Your task to perform on an android device: Open settings Image 0: 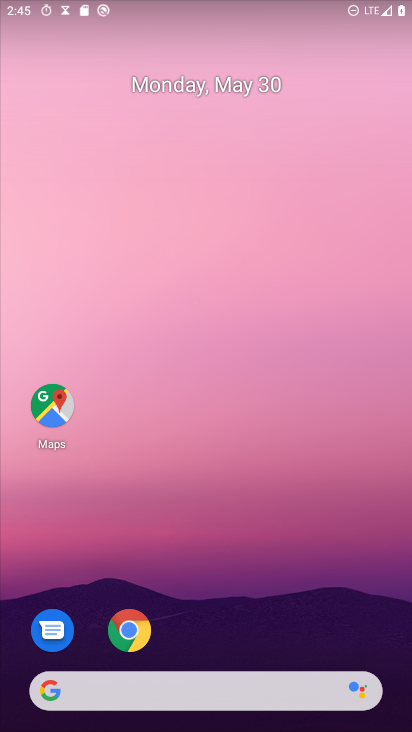
Step 0: drag from (274, 699) to (203, 183)
Your task to perform on an android device: Open settings Image 1: 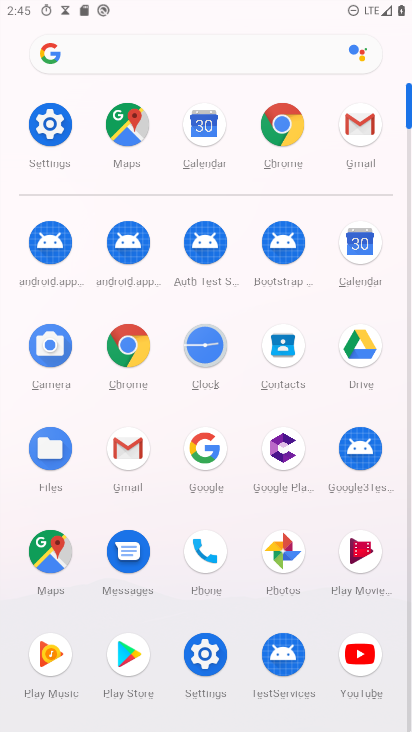
Step 1: click (37, 122)
Your task to perform on an android device: Open settings Image 2: 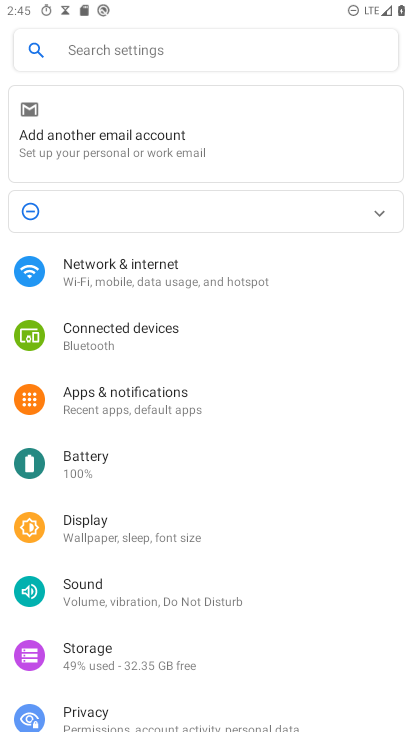
Step 2: task complete